Your task to perform on an android device: Open calendar and show me the fourth week of next month Image 0: 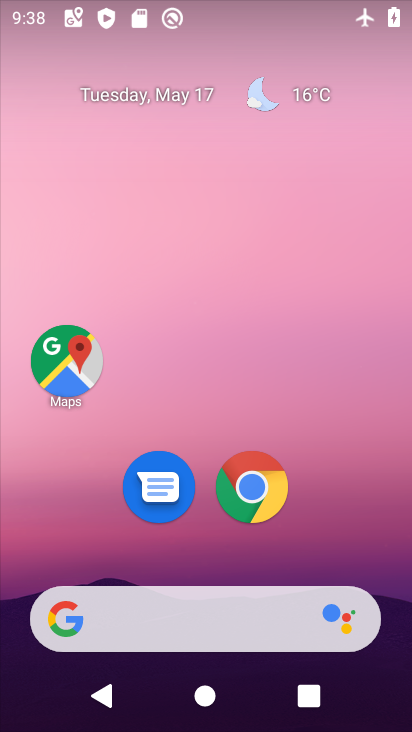
Step 0: drag from (224, 492) to (238, 12)
Your task to perform on an android device: Open calendar and show me the fourth week of next month Image 1: 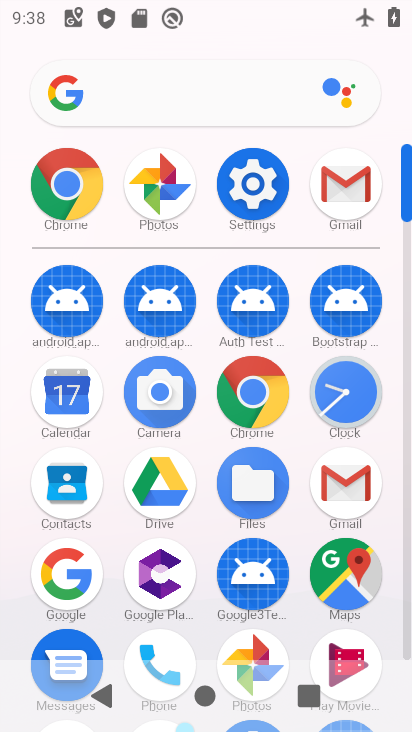
Step 1: click (80, 404)
Your task to perform on an android device: Open calendar and show me the fourth week of next month Image 2: 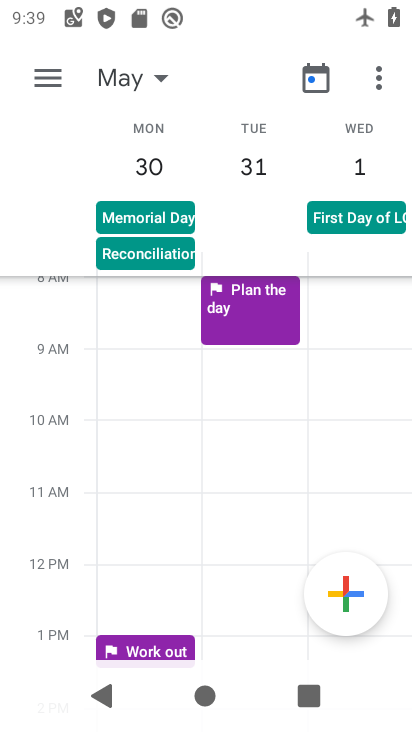
Step 2: click (60, 82)
Your task to perform on an android device: Open calendar and show me the fourth week of next month Image 3: 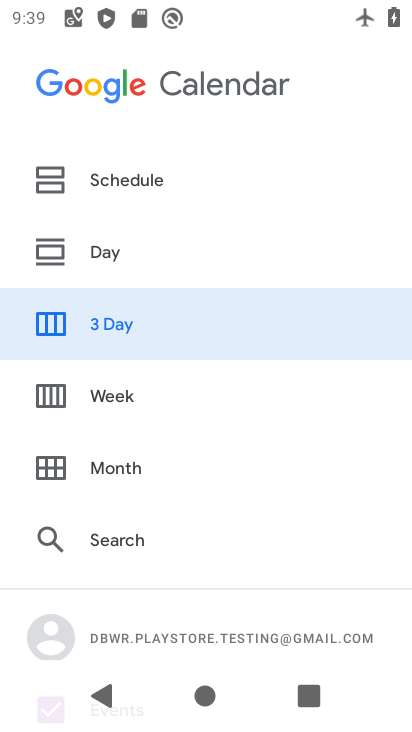
Step 3: click (134, 398)
Your task to perform on an android device: Open calendar and show me the fourth week of next month Image 4: 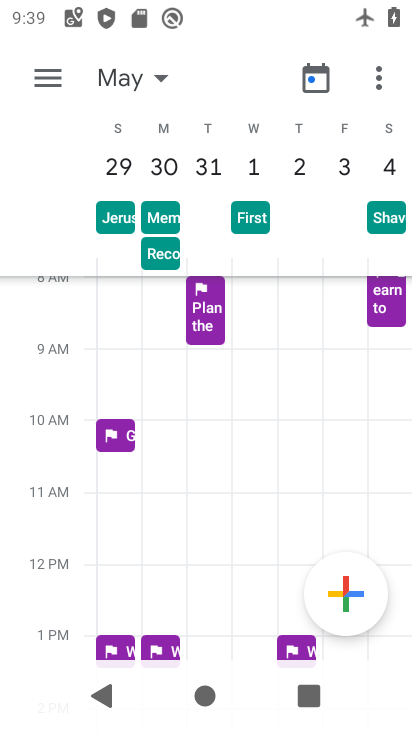
Step 4: task complete